Your task to perform on an android device: change notifications settings Image 0: 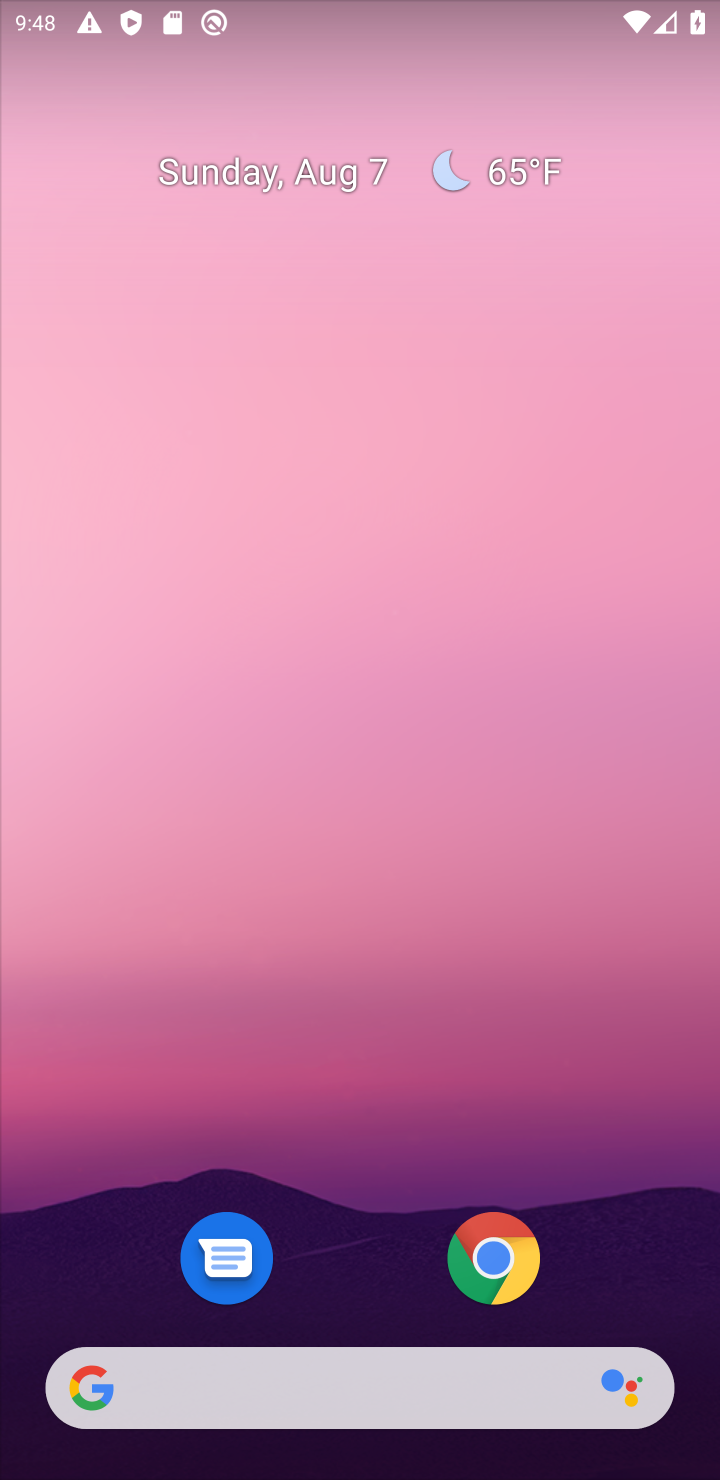
Step 0: press home button
Your task to perform on an android device: change notifications settings Image 1: 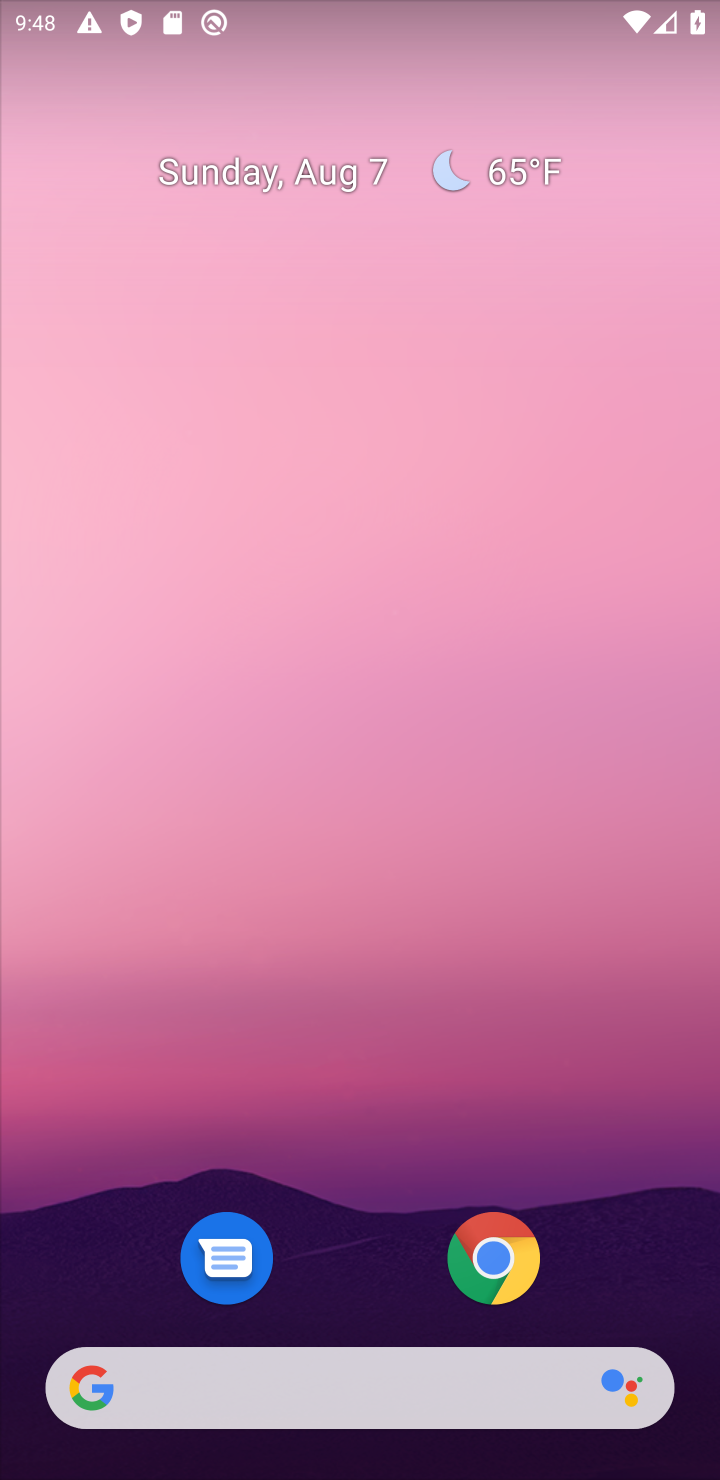
Step 1: drag from (447, 1310) to (512, 716)
Your task to perform on an android device: change notifications settings Image 2: 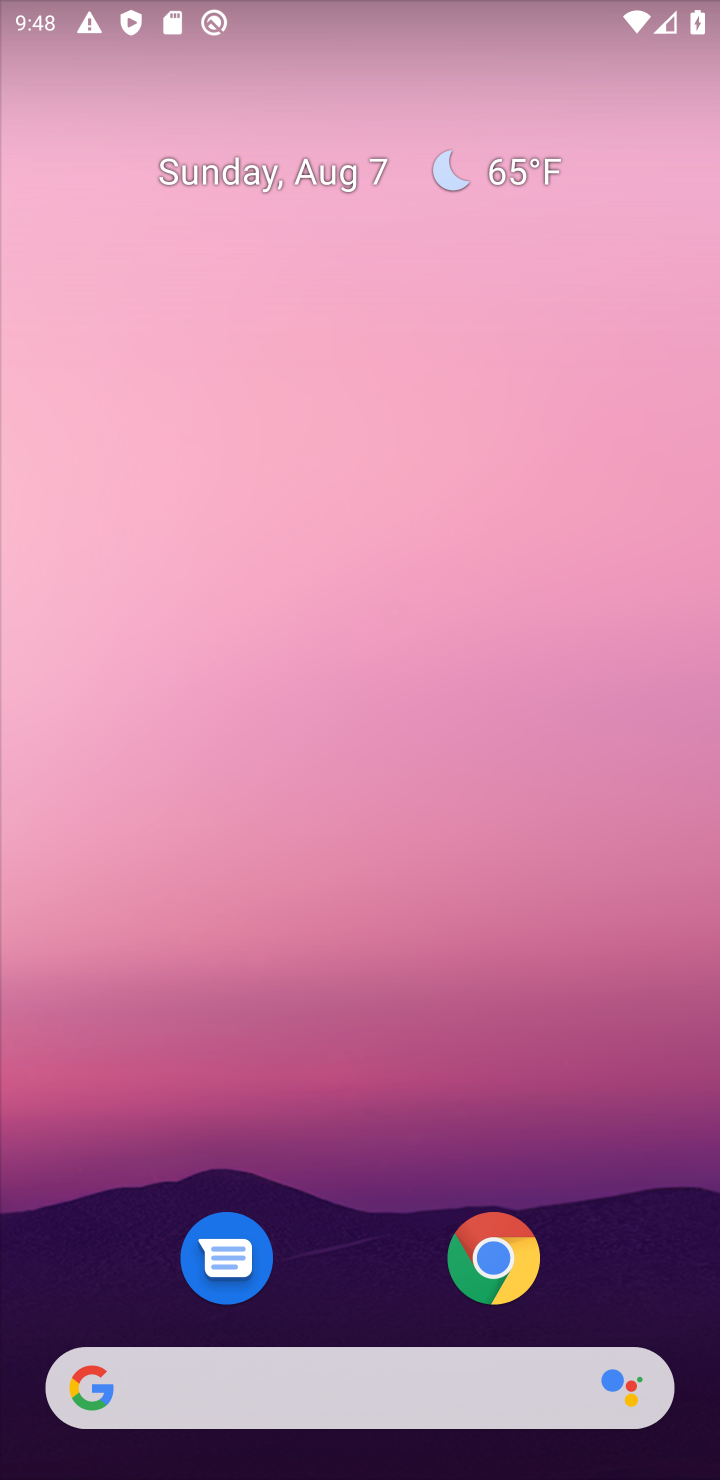
Step 2: drag from (330, 1273) to (658, 143)
Your task to perform on an android device: change notifications settings Image 3: 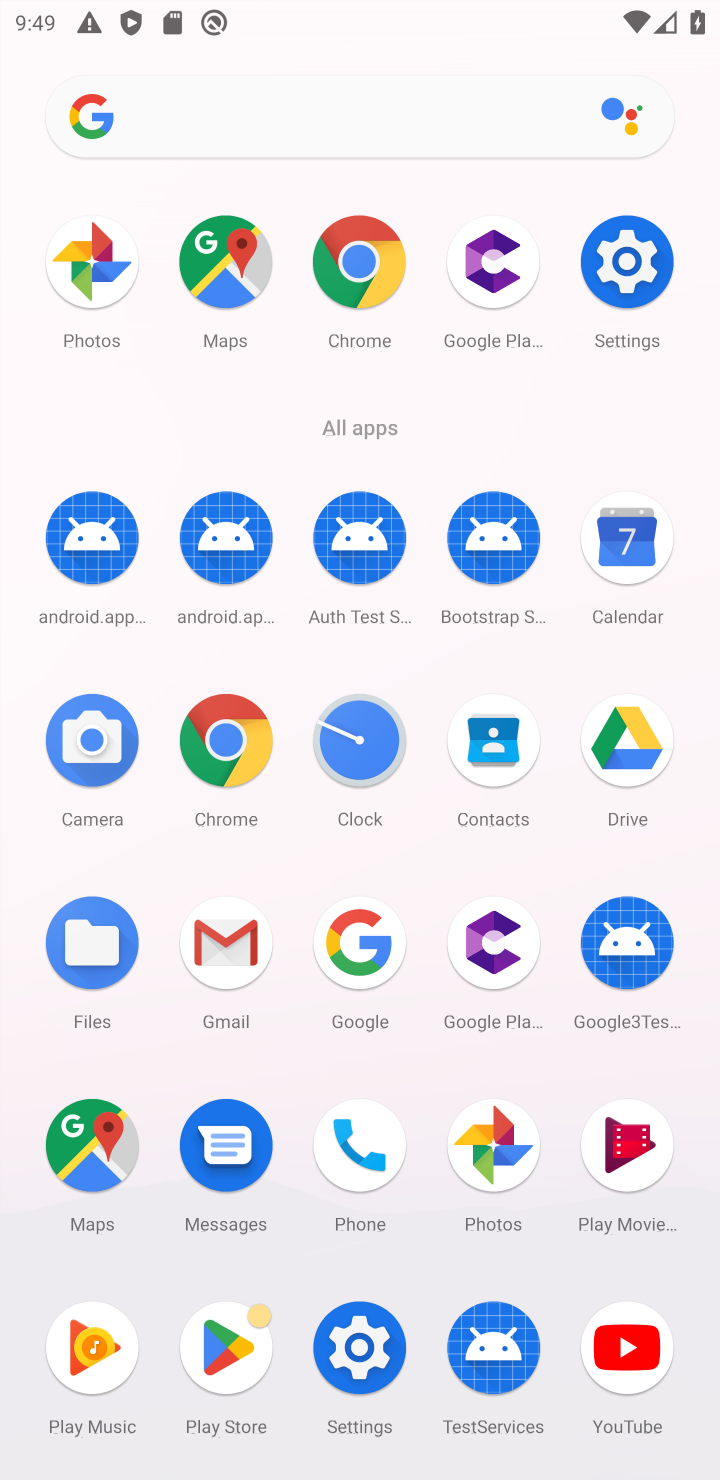
Step 3: click (378, 1358)
Your task to perform on an android device: change notifications settings Image 4: 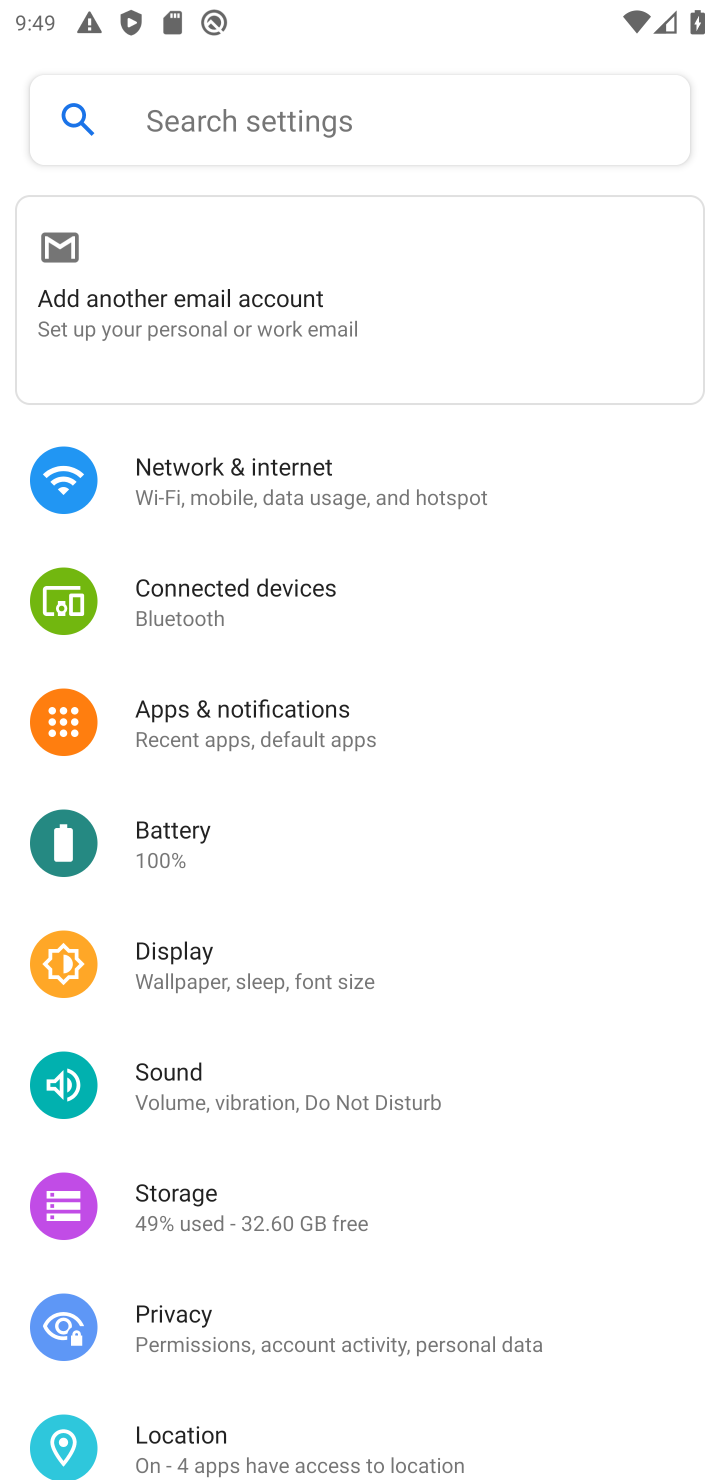
Step 4: click (226, 751)
Your task to perform on an android device: change notifications settings Image 5: 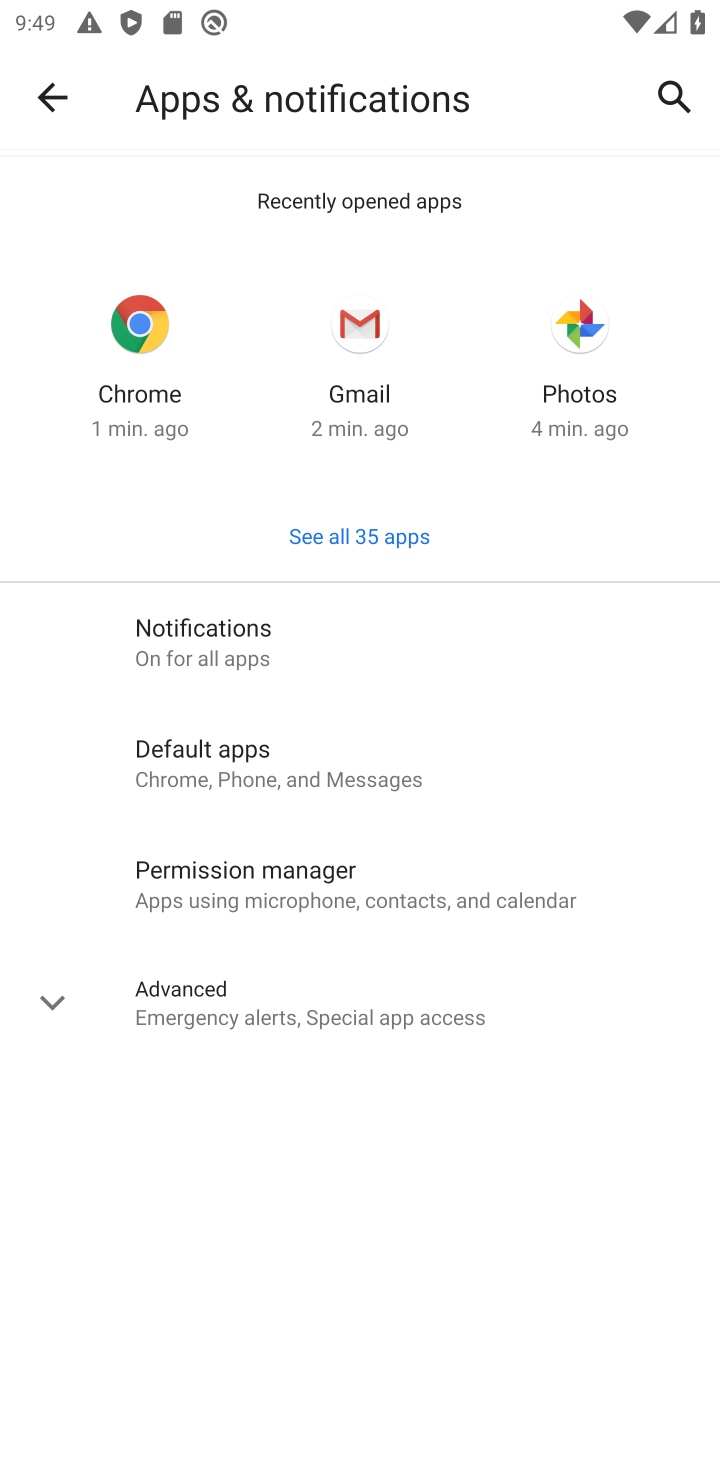
Step 5: click (249, 656)
Your task to perform on an android device: change notifications settings Image 6: 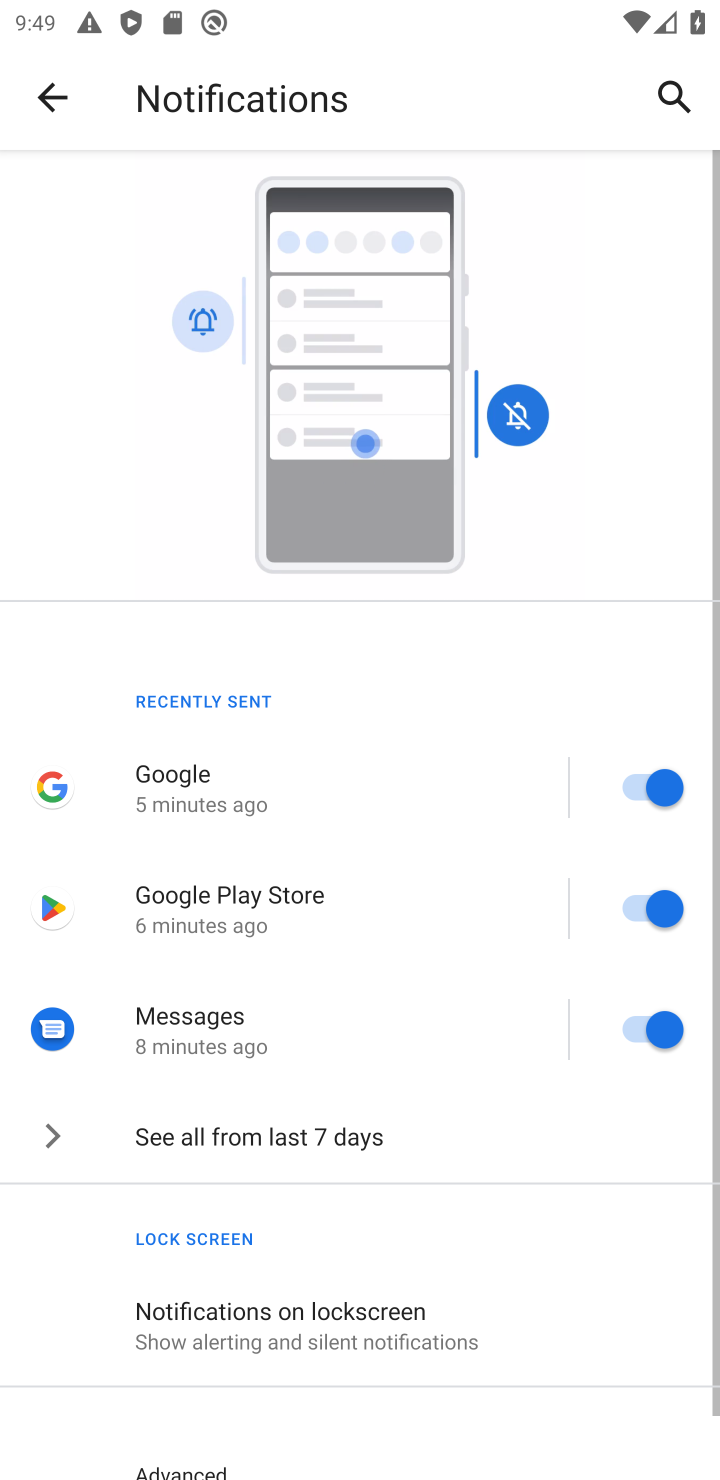
Step 6: task complete